Your task to perform on an android device: open chrome privacy settings Image 0: 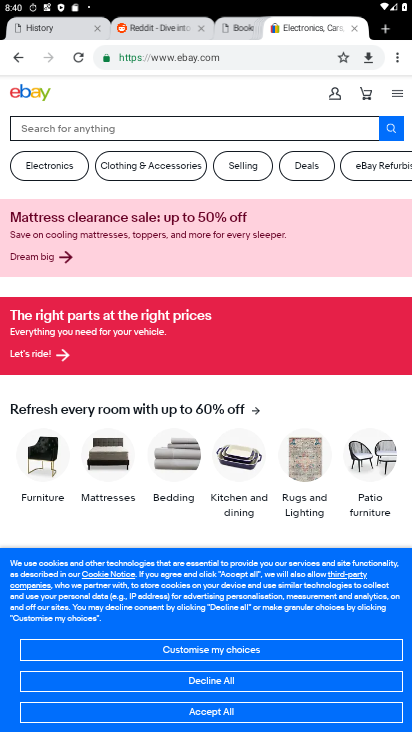
Step 0: press home button
Your task to perform on an android device: open chrome privacy settings Image 1: 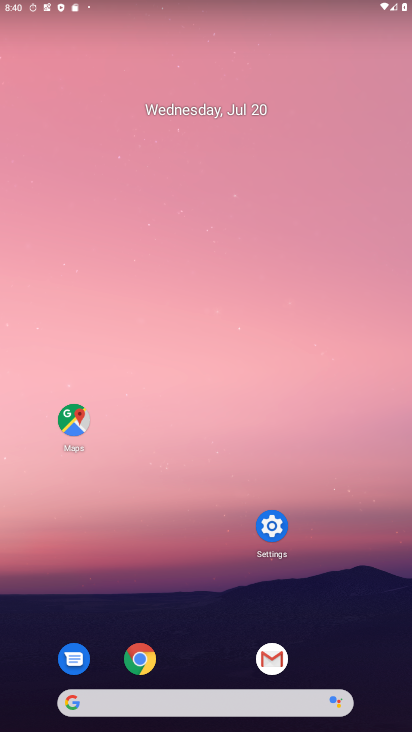
Step 1: click (266, 530)
Your task to perform on an android device: open chrome privacy settings Image 2: 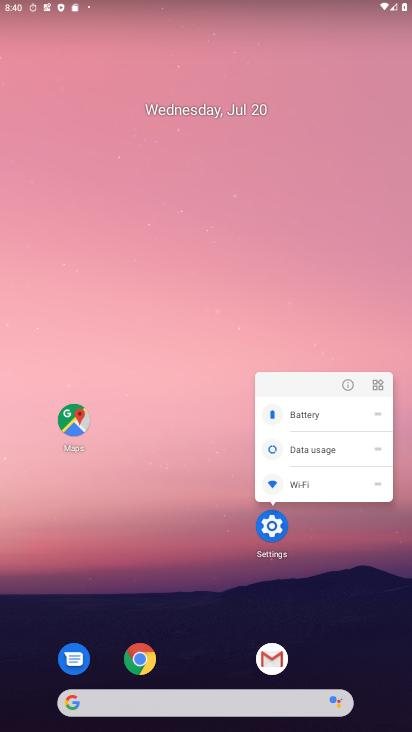
Step 2: click (268, 536)
Your task to perform on an android device: open chrome privacy settings Image 3: 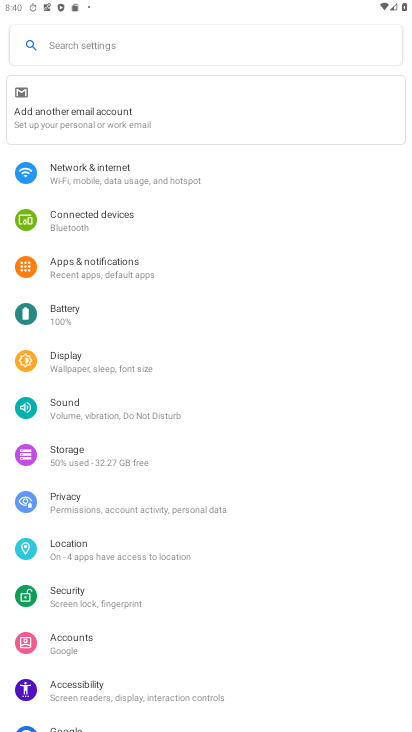
Step 3: press home button
Your task to perform on an android device: open chrome privacy settings Image 4: 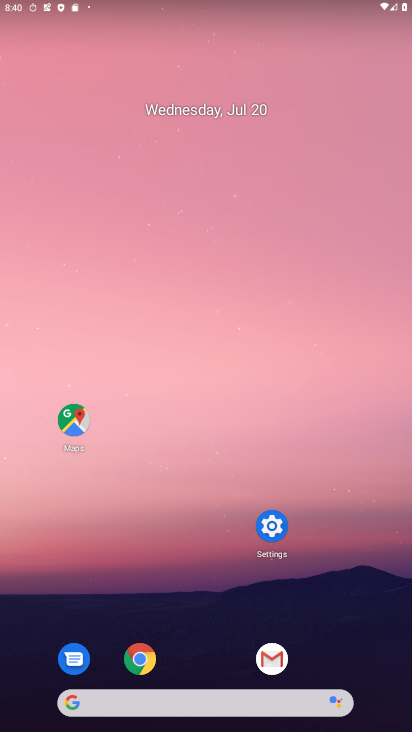
Step 4: click (145, 655)
Your task to perform on an android device: open chrome privacy settings Image 5: 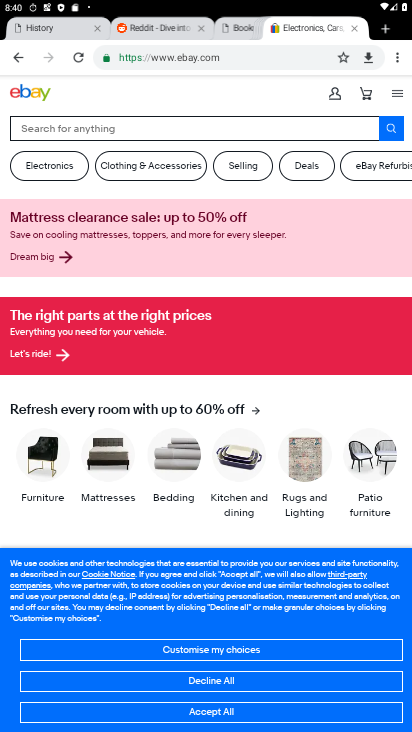
Step 5: click (396, 59)
Your task to perform on an android device: open chrome privacy settings Image 6: 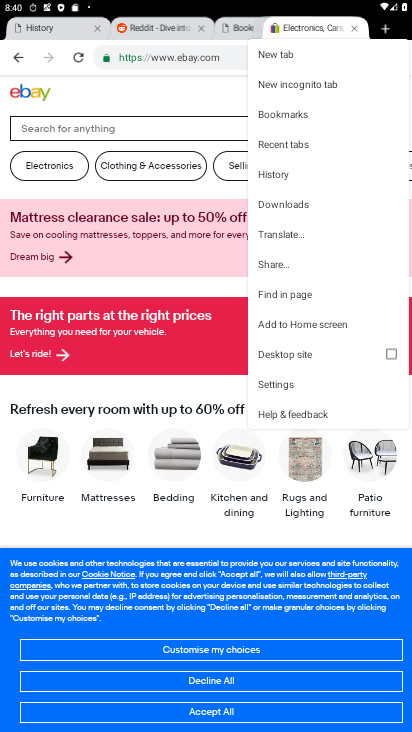
Step 6: click (284, 384)
Your task to perform on an android device: open chrome privacy settings Image 7: 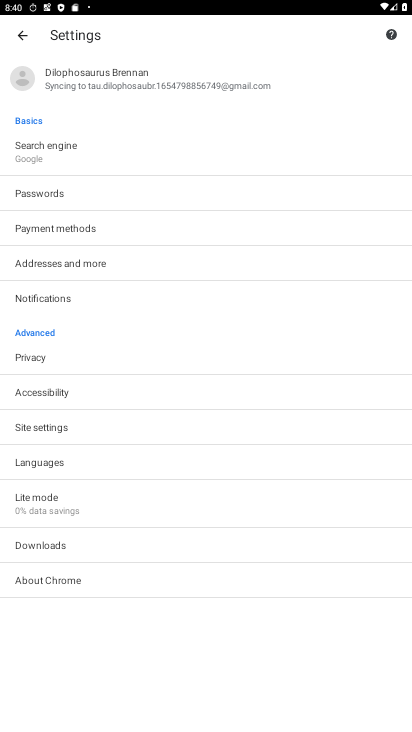
Step 7: click (37, 359)
Your task to perform on an android device: open chrome privacy settings Image 8: 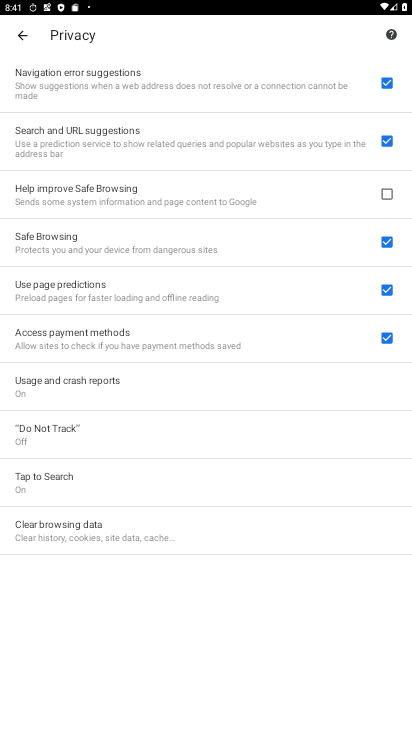
Step 8: task complete